Your task to perform on an android device: open device folders in google photos Image 0: 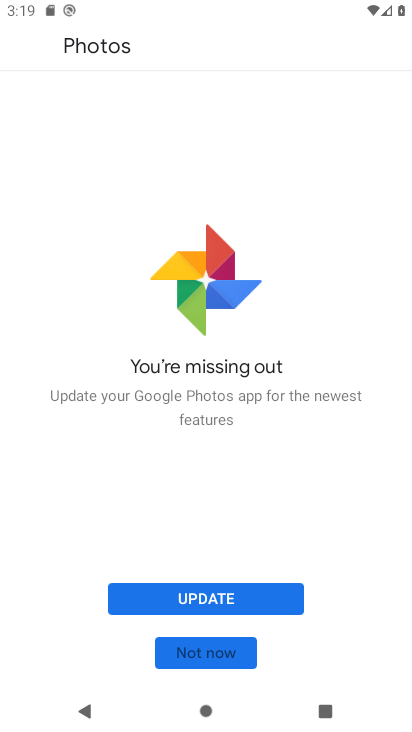
Step 0: press home button
Your task to perform on an android device: open device folders in google photos Image 1: 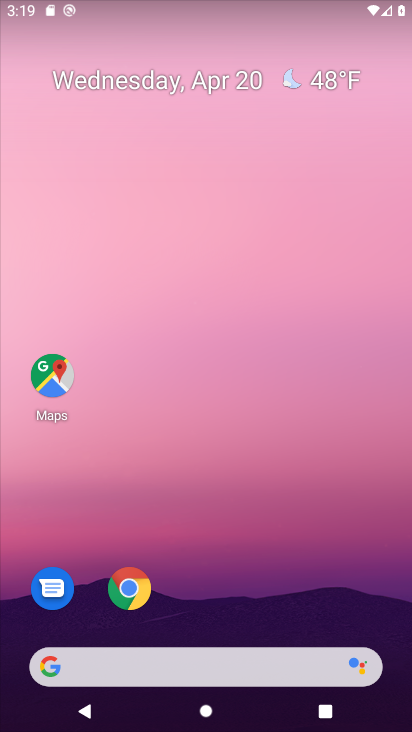
Step 1: drag from (327, 606) to (338, 79)
Your task to perform on an android device: open device folders in google photos Image 2: 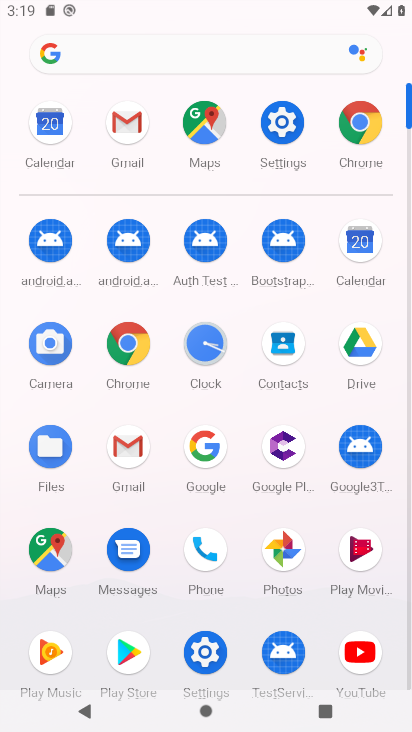
Step 2: click (286, 550)
Your task to perform on an android device: open device folders in google photos Image 3: 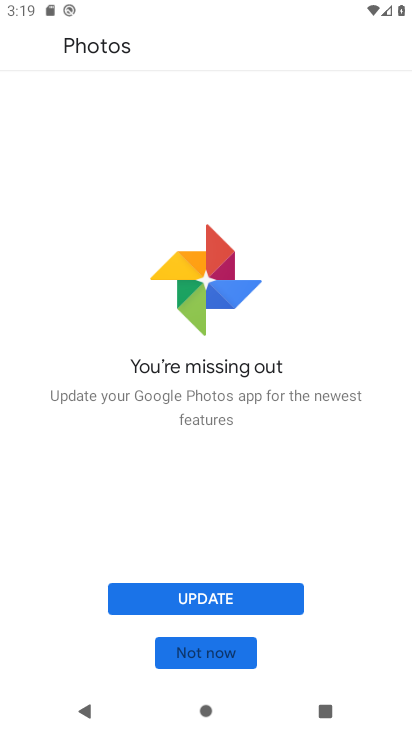
Step 3: click (249, 594)
Your task to perform on an android device: open device folders in google photos Image 4: 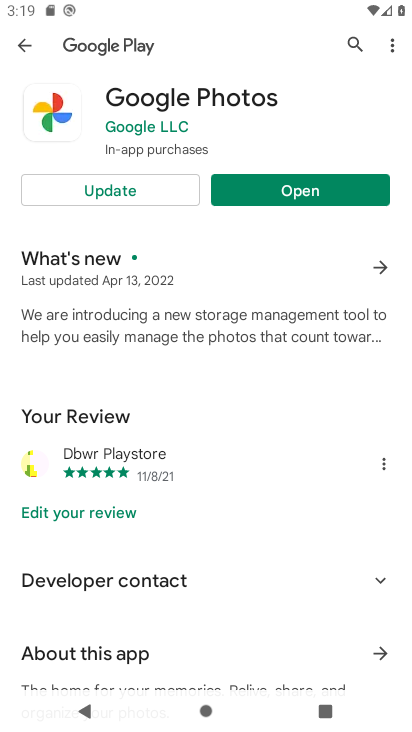
Step 4: click (148, 190)
Your task to perform on an android device: open device folders in google photos Image 5: 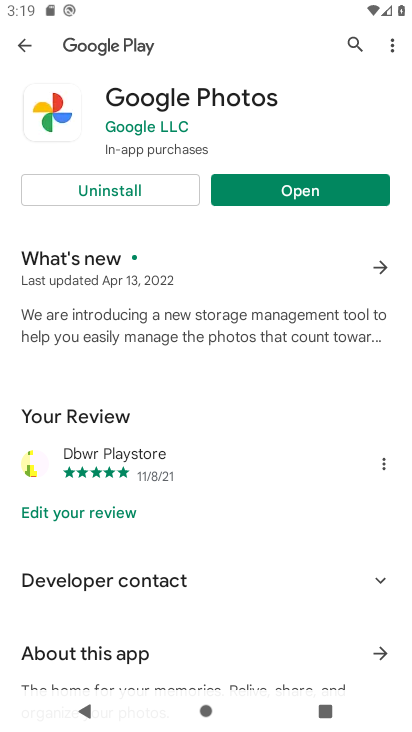
Step 5: click (342, 190)
Your task to perform on an android device: open device folders in google photos Image 6: 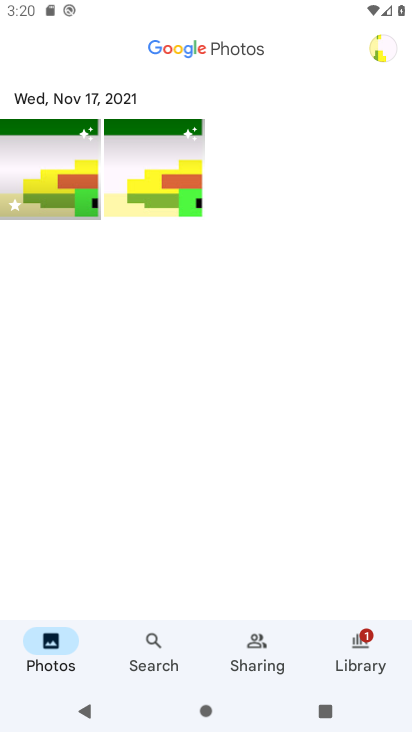
Step 6: click (393, 46)
Your task to perform on an android device: open device folders in google photos Image 7: 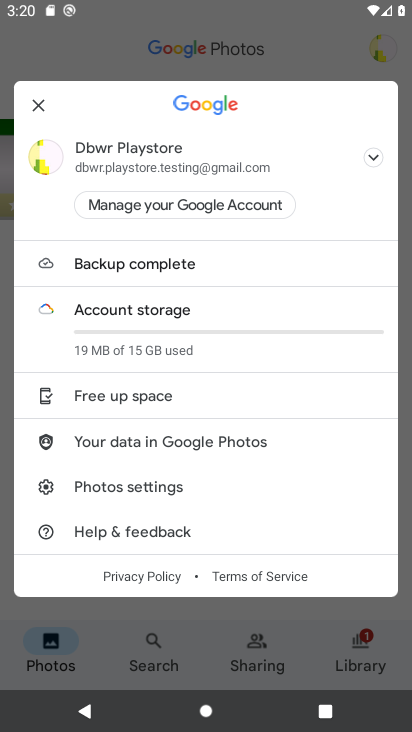
Step 7: task complete